Your task to perform on an android device: open app "WhatsApp Messenger" (install if not already installed) and enter user name: "cartons@outlook.com" and password: "approximated" Image 0: 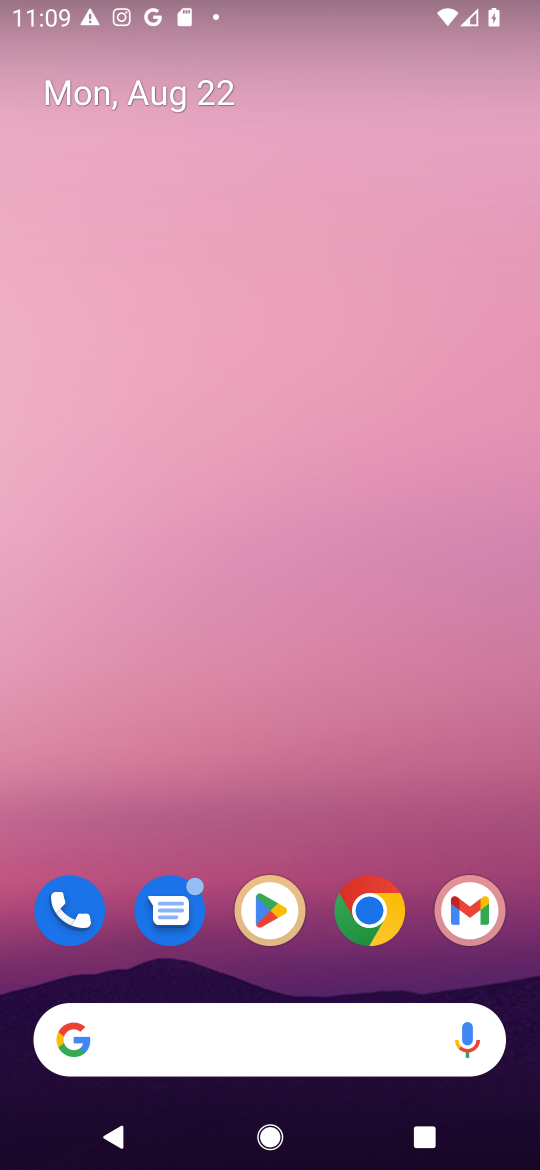
Step 0: click (250, 896)
Your task to perform on an android device: open app "WhatsApp Messenger" (install if not already installed) and enter user name: "cartons@outlook.com" and password: "approximated" Image 1: 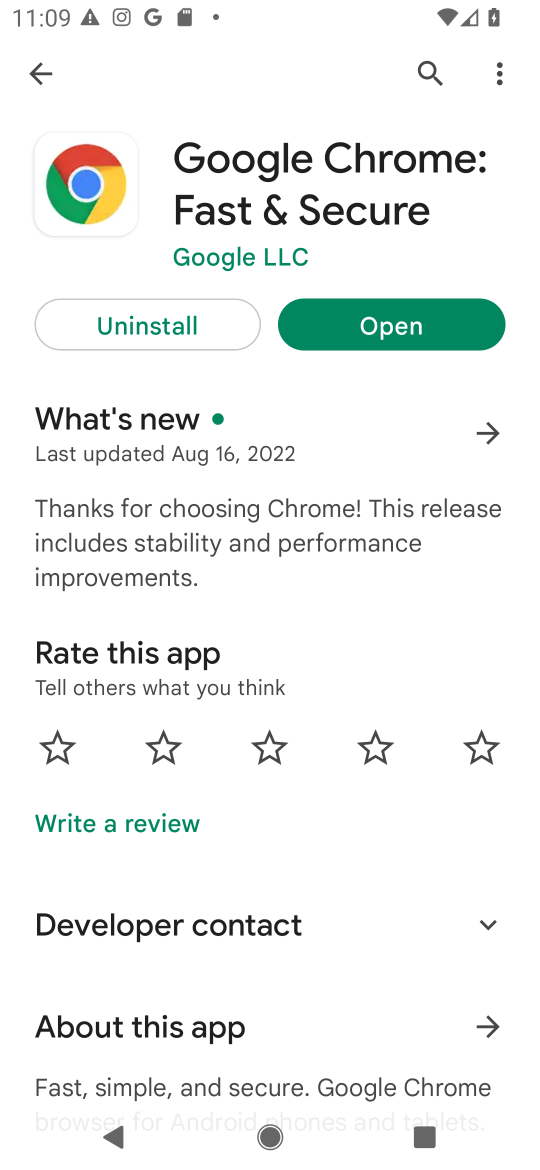
Step 1: click (429, 75)
Your task to perform on an android device: open app "WhatsApp Messenger" (install if not already installed) and enter user name: "cartons@outlook.com" and password: "approximated" Image 2: 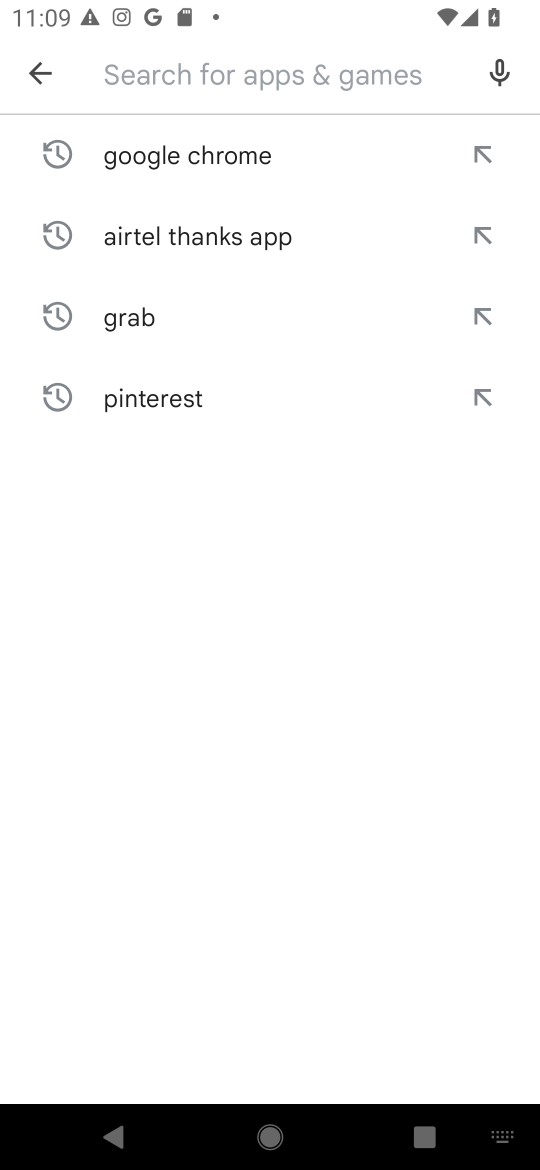
Step 2: type "WhatsApp Messenger"
Your task to perform on an android device: open app "WhatsApp Messenger" (install if not already installed) and enter user name: "cartons@outlook.com" and password: "approximated" Image 3: 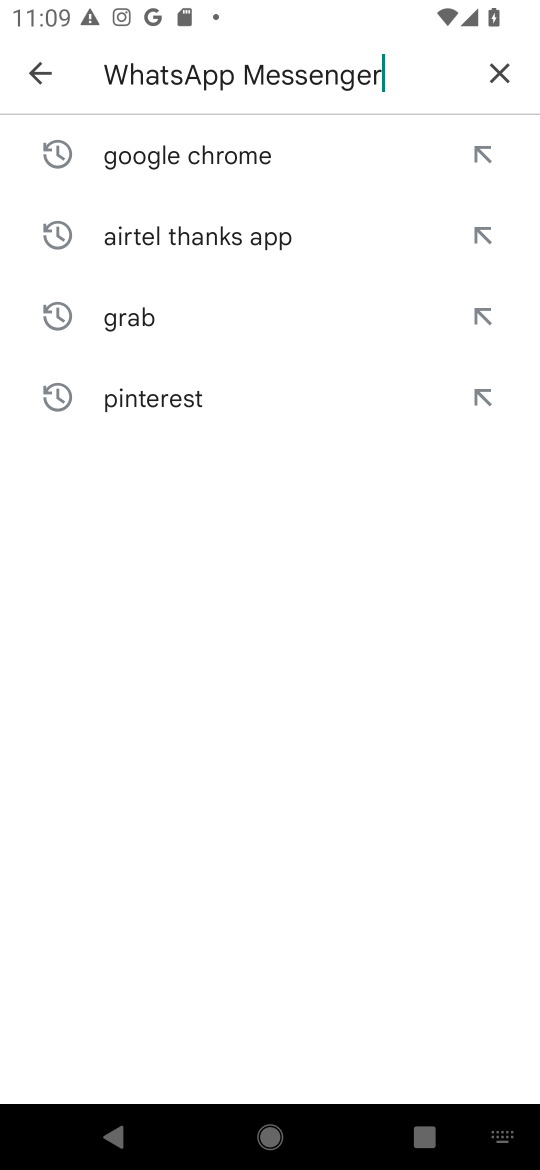
Step 3: type ""
Your task to perform on an android device: open app "WhatsApp Messenger" (install if not already installed) and enter user name: "cartons@outlook.com" and password: "approximated" Image 4: 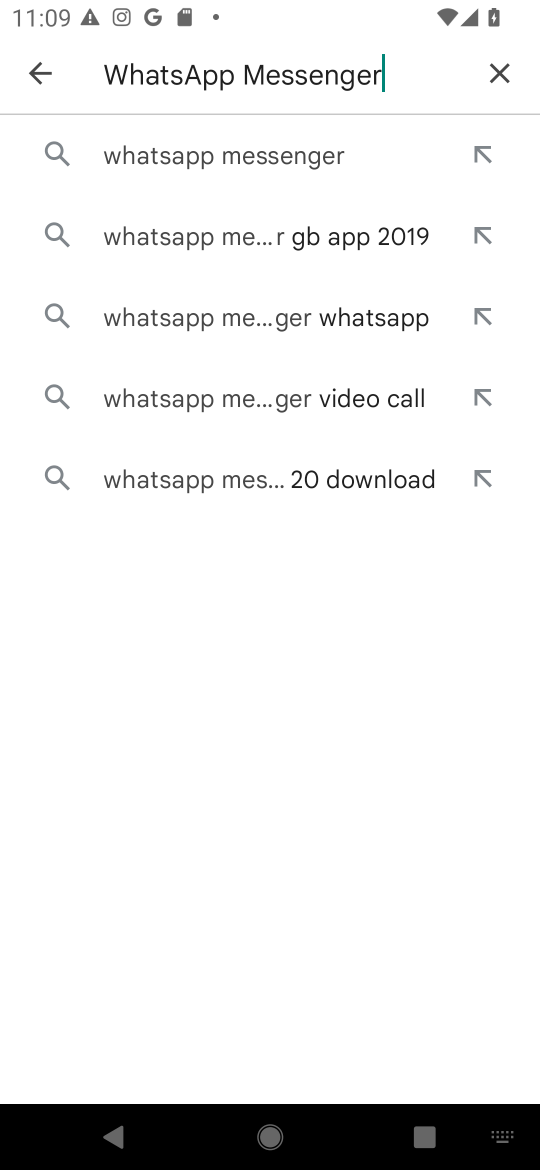
Step 4: click (191, 149)
Your task to perform on an android device: open app "WhatsApp Messenger" (install if not already installed) and enter user name: "cartons@outlook.com" and password: "approximated" Image 5: 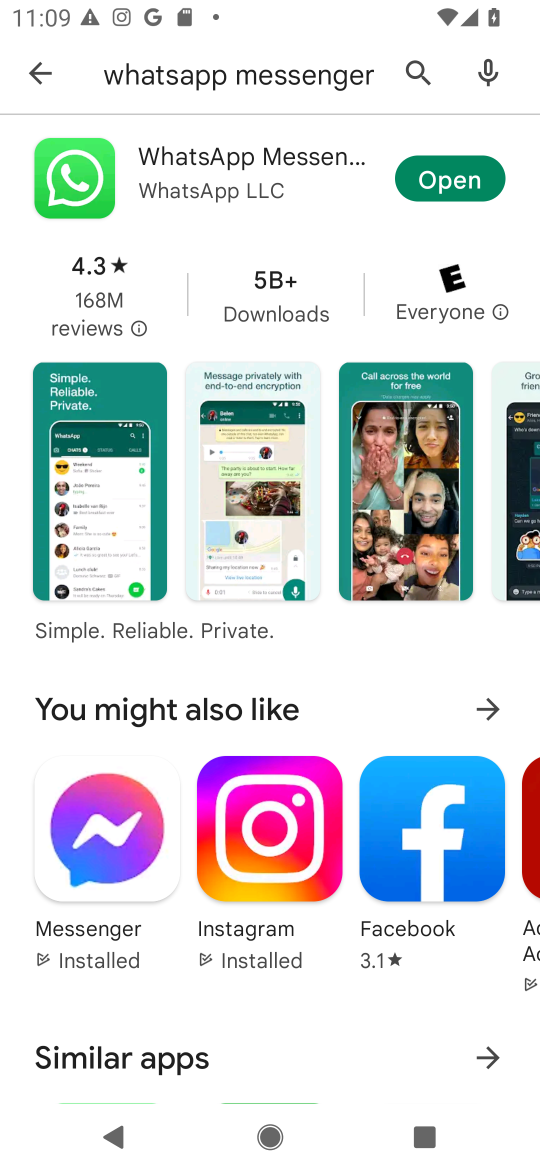
Step 5: click (454, 185)
Your task to perform on an android device: open app "WhatsApp Messenger" (install if not already installed) and enter user name: "cartons@outlook.com" and password: "approximated" Image 6: 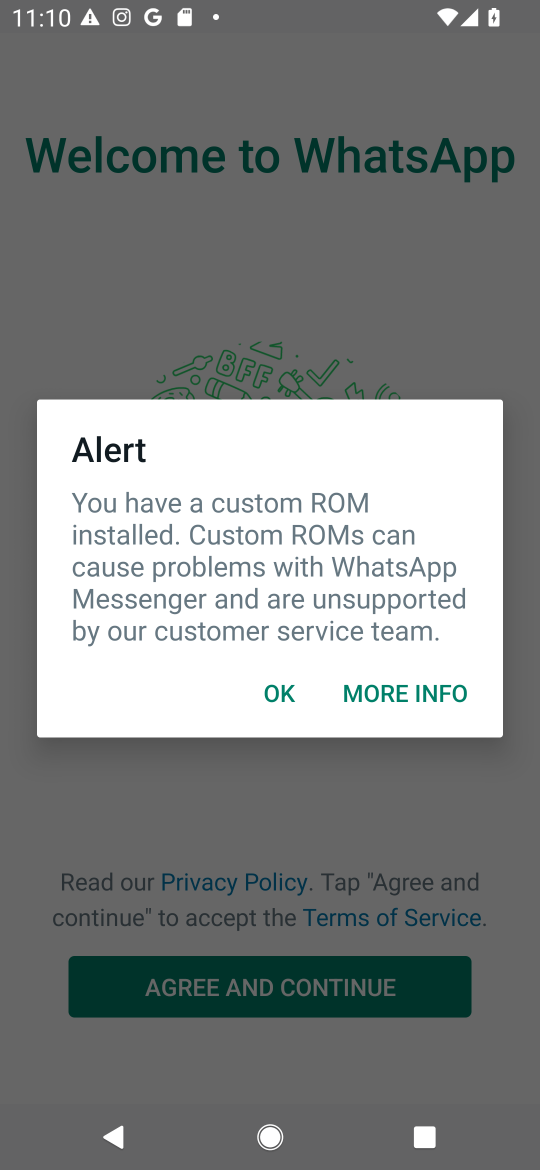
Step 6: click (292, 702)
Your task to perform on an android device: open app "WhatsApp Messenger" (install if not already installed) and enter user name: "cartons@outlook.com" and password: "approximated" Image 7: 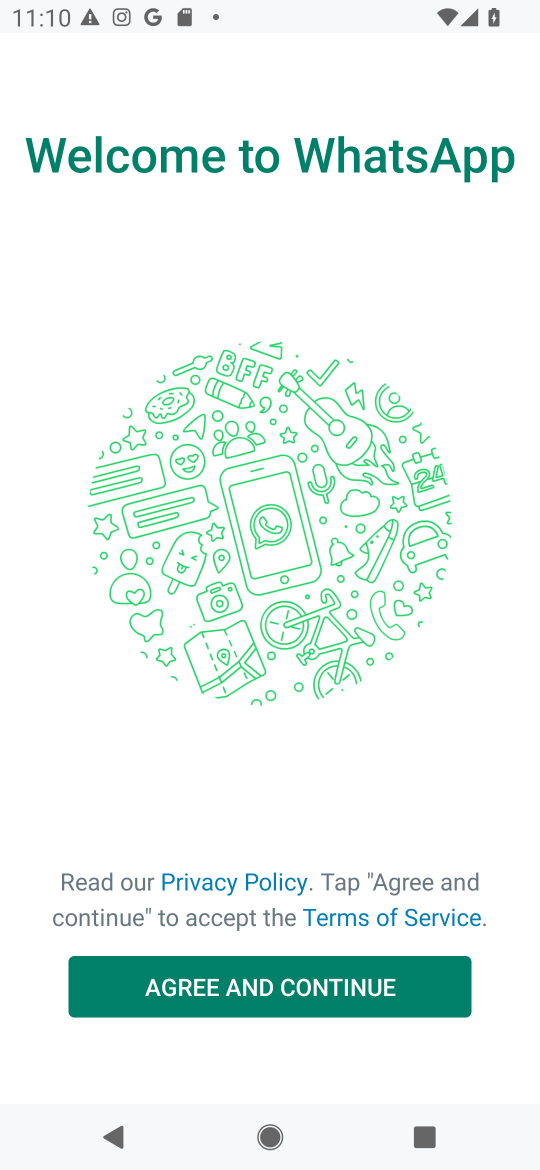
Step 7: task complete